Your task to perform on an android device: Go to Maps Image 0: 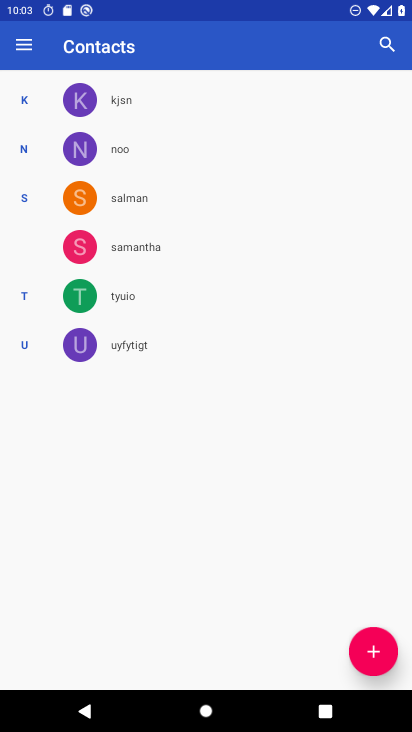
Step 0: press home button
Your task to perform on an android device: Go to Maps Image 1: 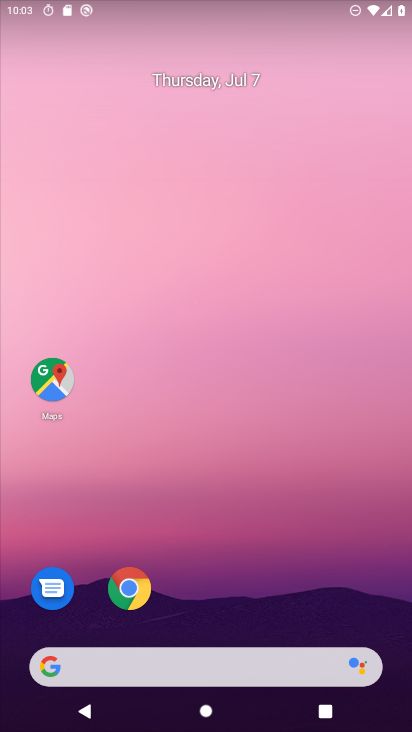
Step 1: click (40, 356)
Your task to perform on an android device: Go to Maps Image 2: 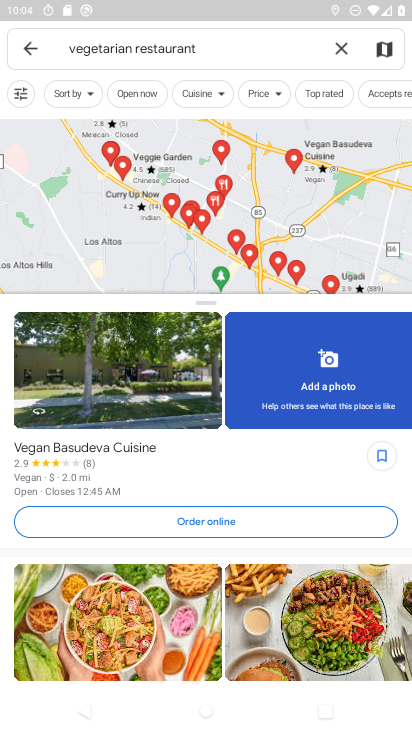
Step 2: task complete